Your task to perform on an android device: turn on notifications settings in the gmail app Image 0: 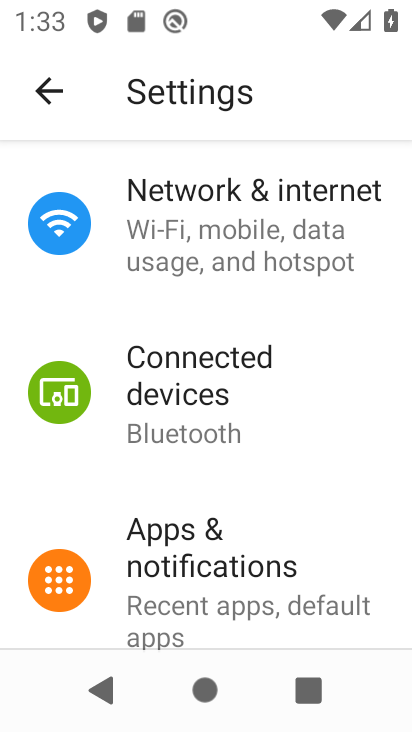
Step 0: press home button
Your task to perform on an android device: turn on notifications settings in the gmail app Image 1: 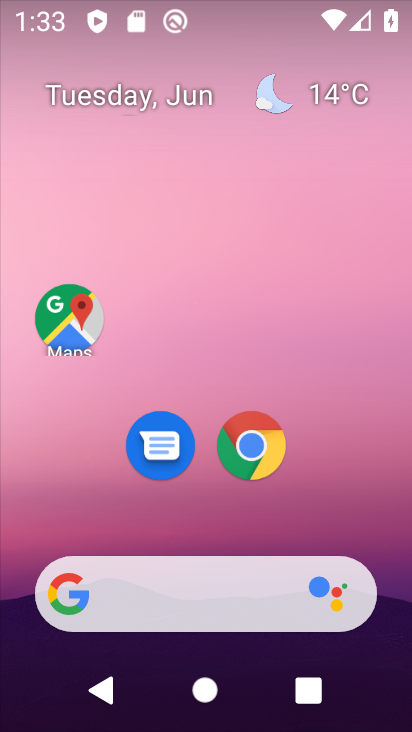
Step 1: drag from (407, 519) to (317, 102)
Your task to perform on an android device: turn on notifications settings in the gmail app Image 2: 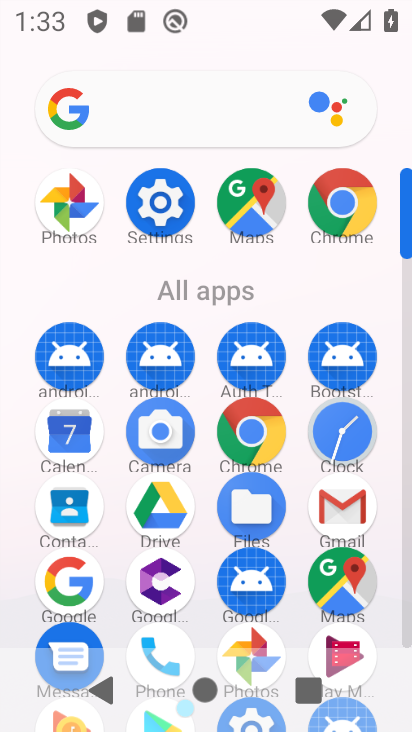
Step 2: drag from (295, 631) to (281, 239)
Your task to perform on an android device: turn on notifications settings in the gmail app Image 3: 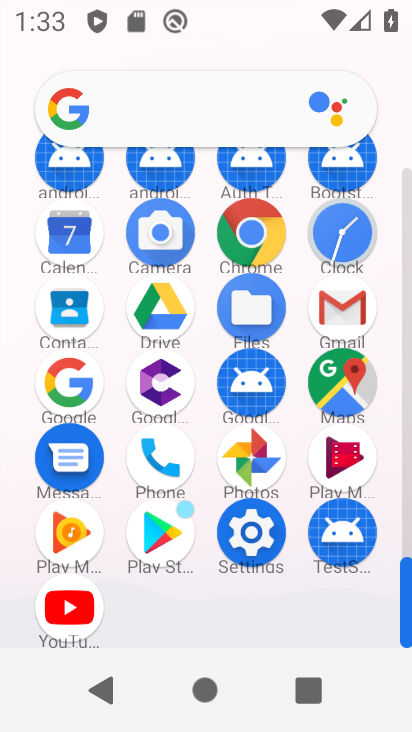
Step 3: drag from (221, 273) to (221, 587)
Your task to perform on an android device: turn on notifications settings in the gmail app Image 4: 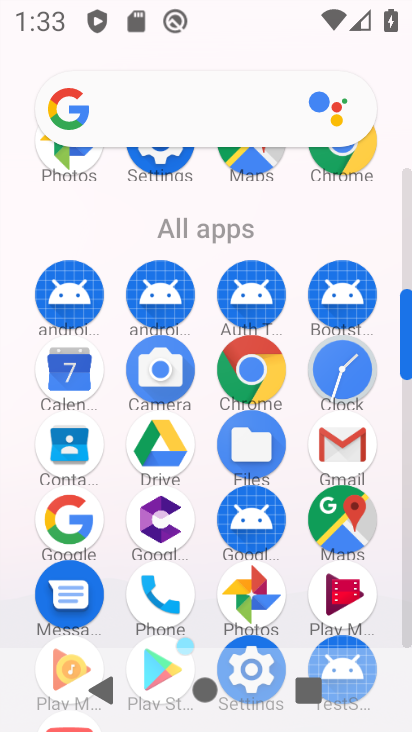
Step 4: click (349, 455)
Your task to perform on an android device: turn on notifications settings in the gmail app Image 5: 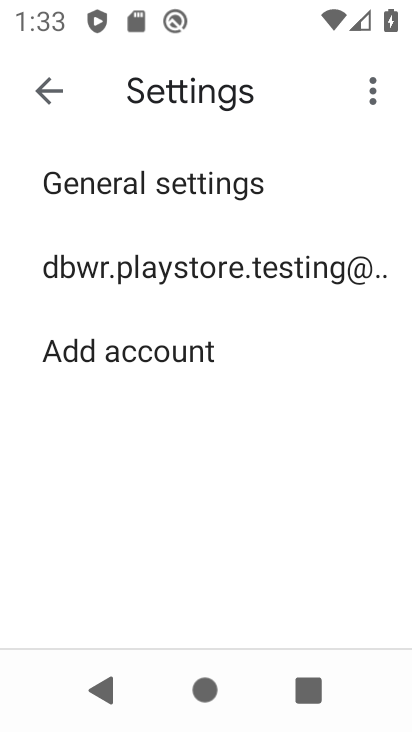
Step 5: click (175, 261)
Your task to perform on an android device: turn on notifications settings in the gmail app Image 6: 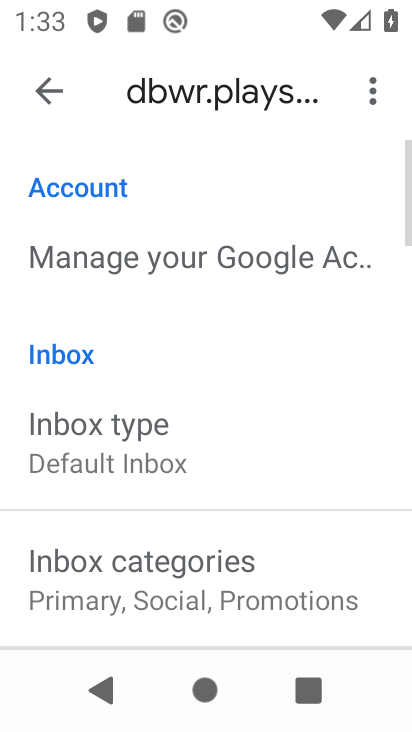
Step 6: drag from (236, 594) to (256, 233)
Your task to perform on an android device: turn on notifications settings in the gmail app Image 7: 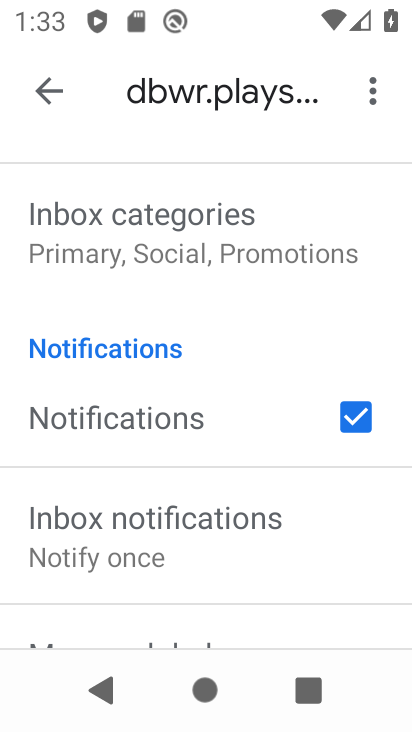
Step 7: drag from (280, 544) to (284, 230)
Your task to perform on an android device: turn on notifications settings in the gmail app Image 8: 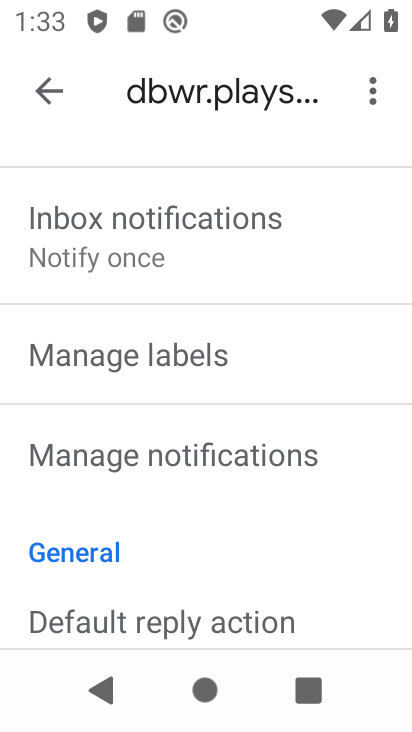
Step 8: drag from (291, 266) to (301, 534)
Your task to perform on an android device: turn on notifications settings in the gmail app Image 9: 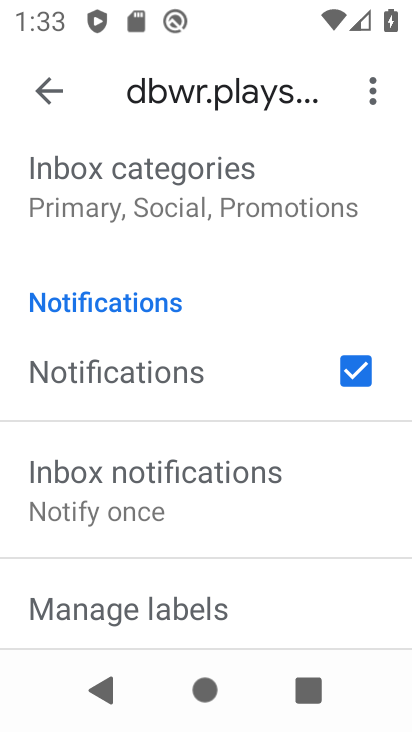
Step 9: drag from (244, 233) to (239, 539)
Your task to perform on an android device: turn on notifications settings in the gmail app Image 10: 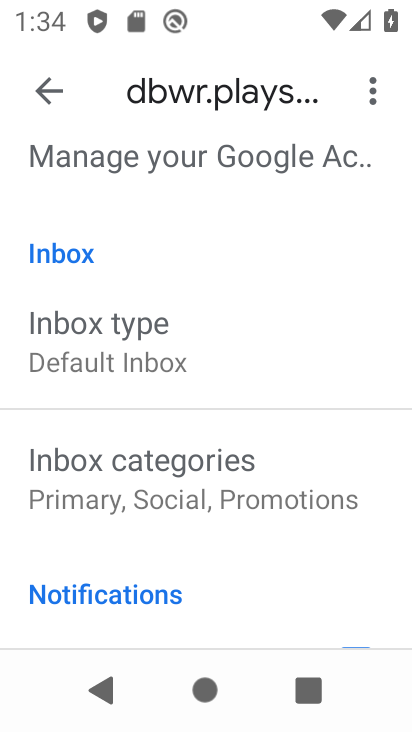
Step 10: drag from (209, 551) to (264, 299)
Your task to perform on an android device: turn on notifications settings in the gmail app Image 11: 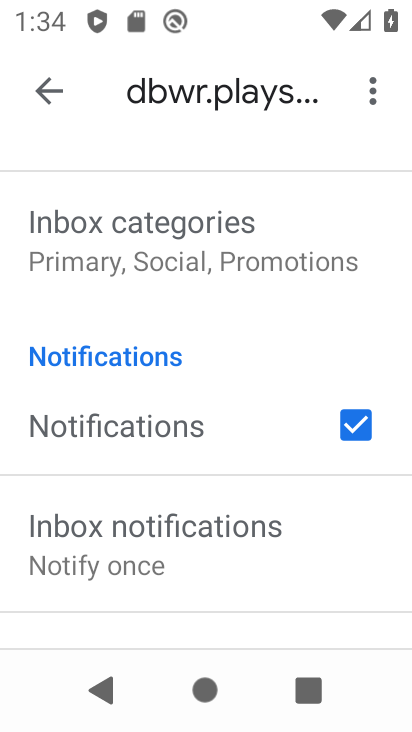
Step 11: drag from (205, 556) to (243, 297)
Your task to perform on an android device: turn on notifications settings in the gmail app Image 12: 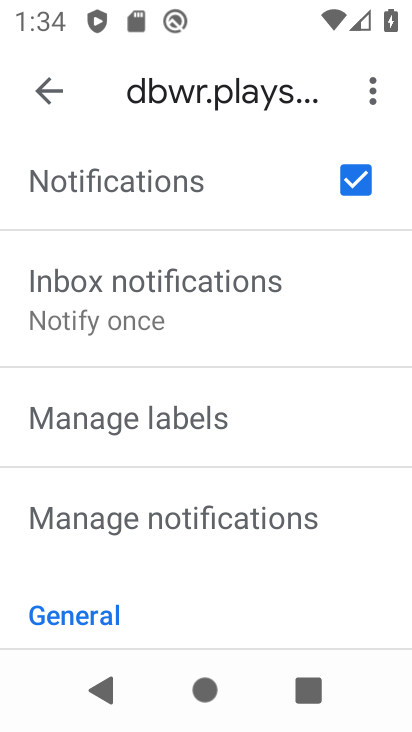
Step 12: drag from (210, 562) to (224, 206)
Your task to perform on an android device: turn on notifications settings in the gmail app Image 13: 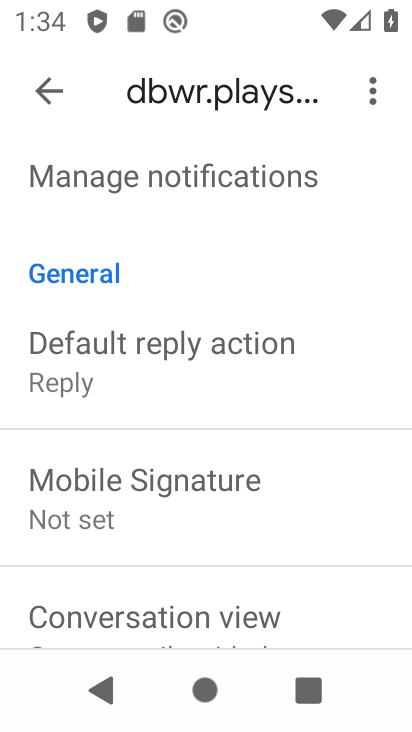
Step 13: click (206, 179)
Your task to perform on an android device: turn on notifications settings in the gmail app Image 14: 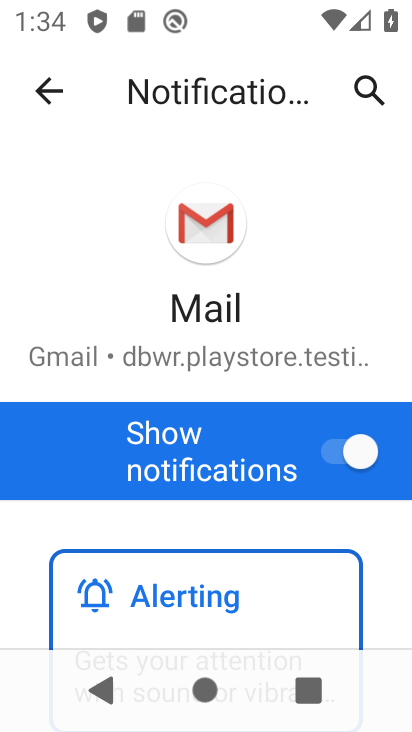
Step 14: task complete